Your task to perform on an android device: turn off data saver in the chrome app Image 0: 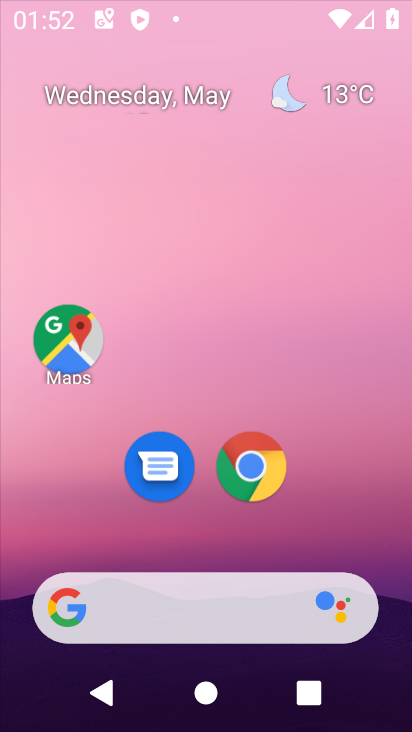
Step 0: press home button
Your task to perform on an android device: turn off data saver in the chrome app Image 1: 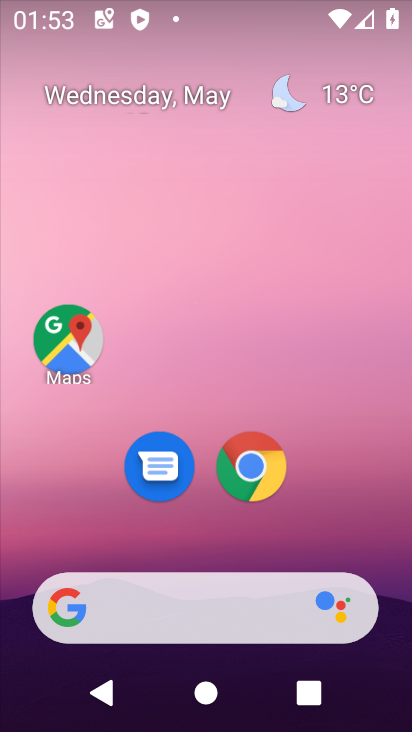
Step 1: drag from (320, 503) to (366, 51)
Your task to perform on an android device: turn off data saver in the chrome app Image 2: 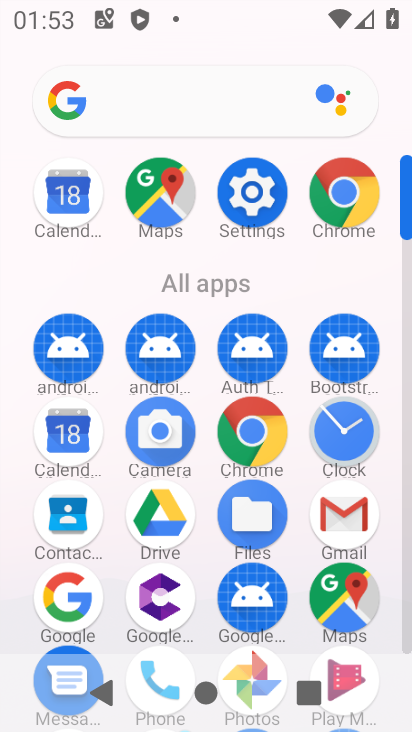
Step 2: click (324, 203)
Your task to perform on an android device: turn off data saver in the chrome app Image 3: 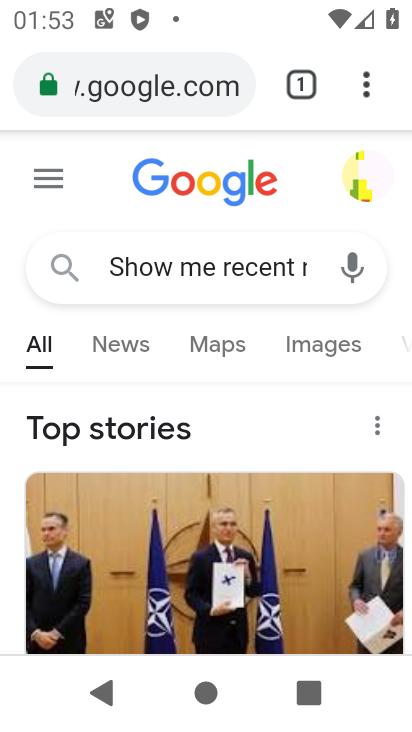
Step 3: drag from (378, 85) to (142, 511)
Your task to perform on an android device: turn off data saver in the chrome app Image 4: 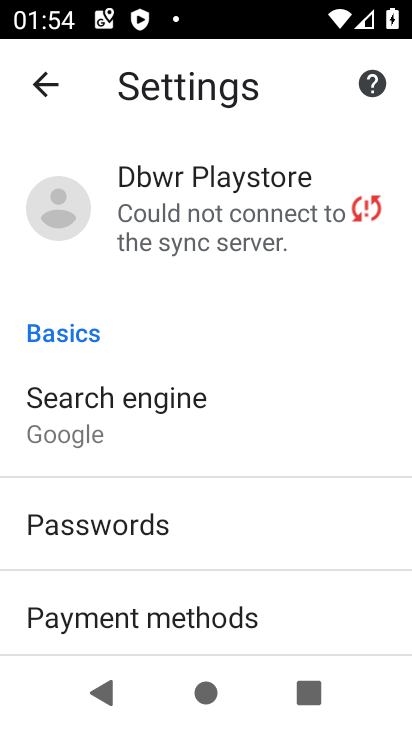
Step 4: drag from (185, 598) to (281, 117)
Your task to perform on an android device: turn off data saver in the chrome app Image 5: 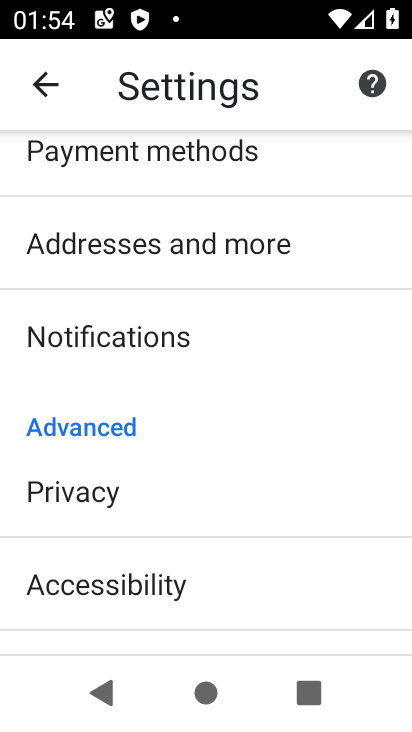
Step 5: drag from (163, 580) to (185, 109)
Your task to perform on an android device: turn off data saver in the chrome app Image 6: 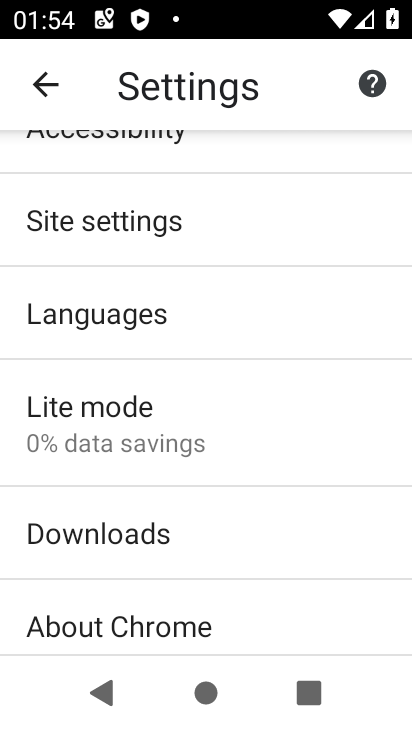
Step 6: click (129, 410)
Your task to perform on an android device: turn off data saver in the chrome app Image 7: 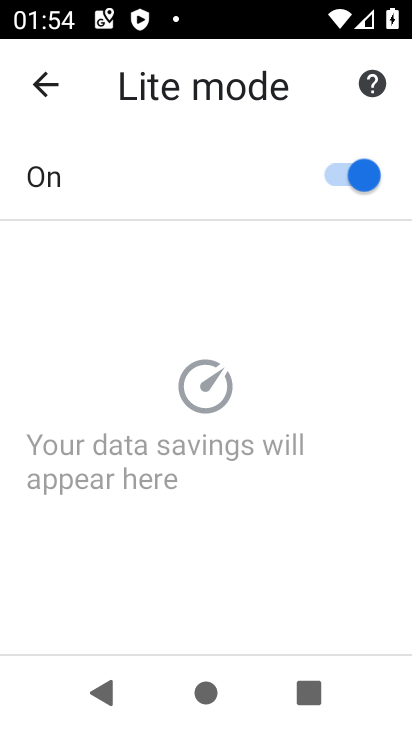
Step 7: click (327, 177)
Your task to perform on an android device: turn off data saver in the chrome app Image 8: 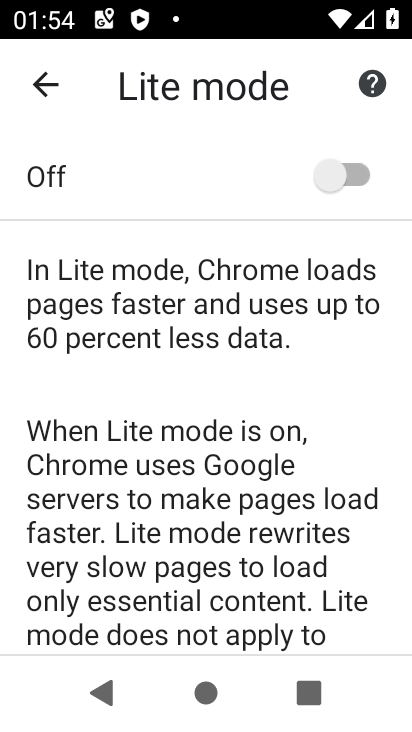
Step 8: task complete